Your task to perform on an android device: Do I have any events this weekend? Image 0: 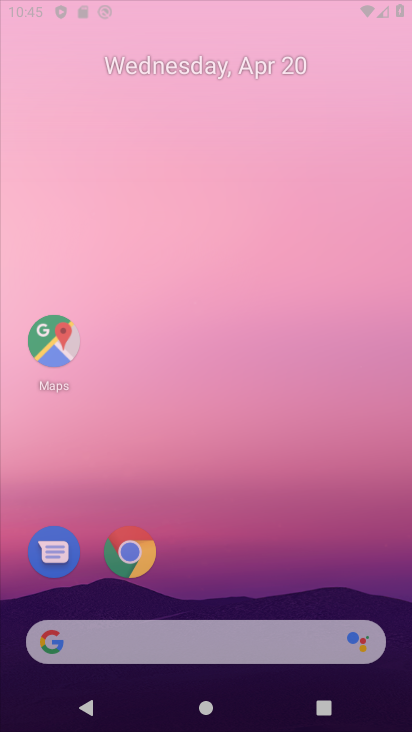
Step 0: click (211, 4)
Your task to perform on an android device: Do I have any events this weekend? Image 1: 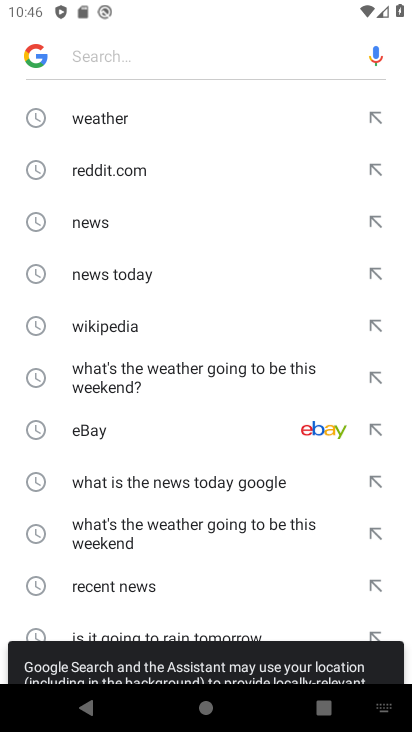
Step 1: press home button
Your task to perform on an android device: Do I have any events this weekend? Image 2: 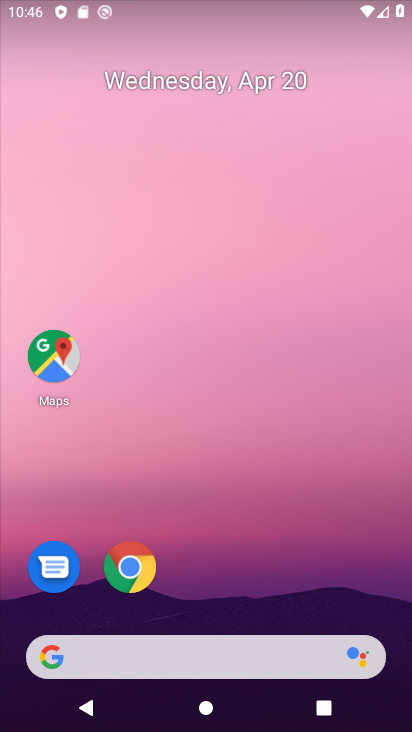
Step 2: drag from (201, 625) to (144, 100)
Your task to perform on an android device: Do I have any events this weekend? Image 3: 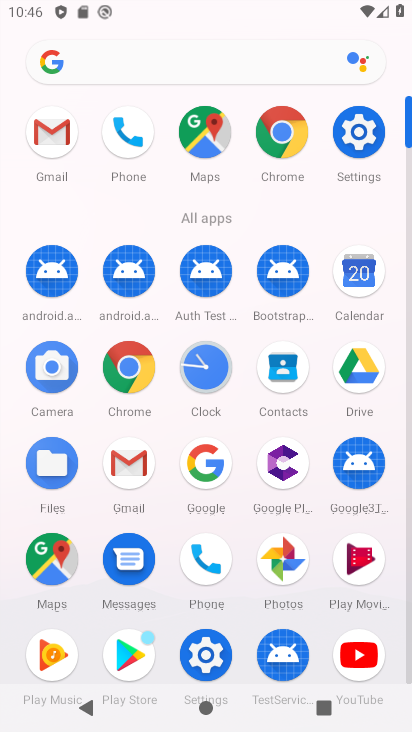
Step 3: click (358, 290)
Your task to perform on an android device: Do I have any events this weekend? Image 4: 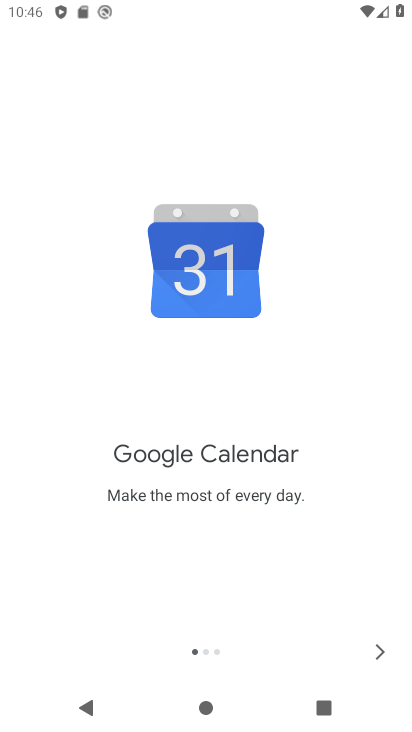
Step 4: click (384, 654)
Your task to perform on an android device: Do I have any events this weekend? Image 5: 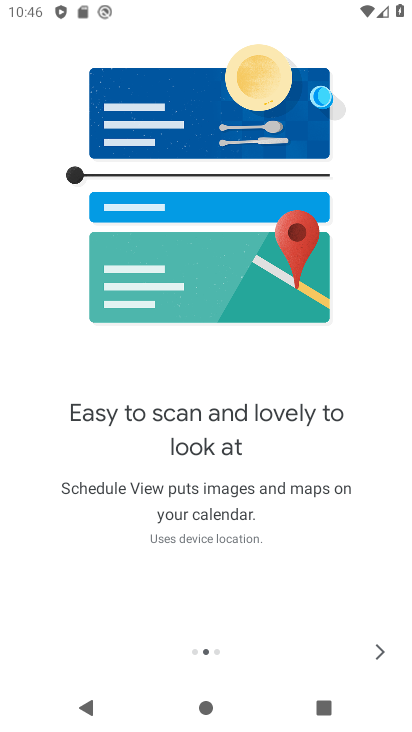
Step 5: click (373, 644)
Your task to perform on an android device: Do I have any events this weekend? Image 6: 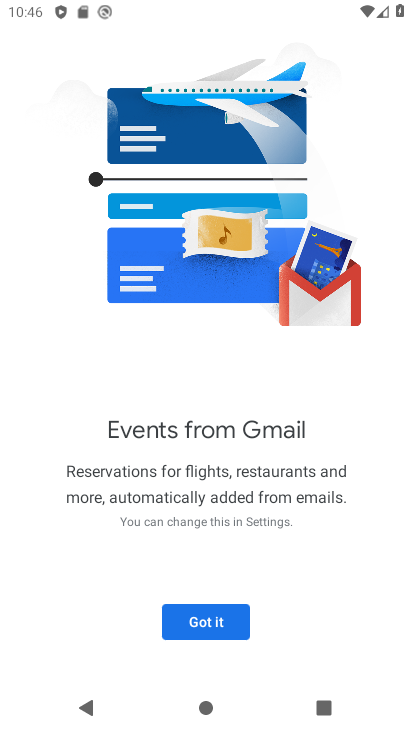
Step 6: click (373, 644)
Your task to perform on an android device: Do I have any events this weekend? Image 7: 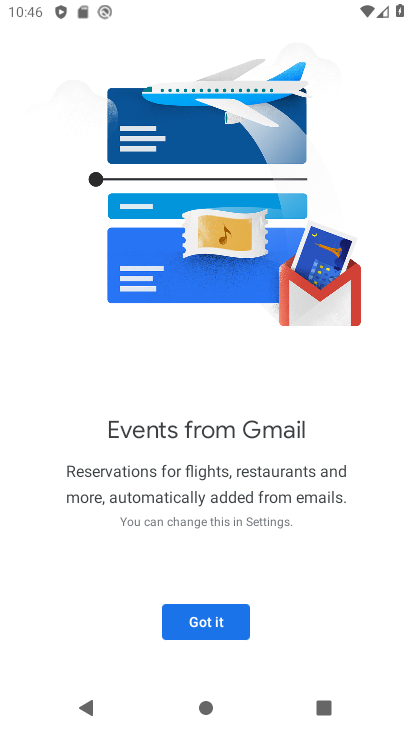
Step 7: click (197, 603)
Your task to perform on an android device: Do I have any events this weekend? Image 8: 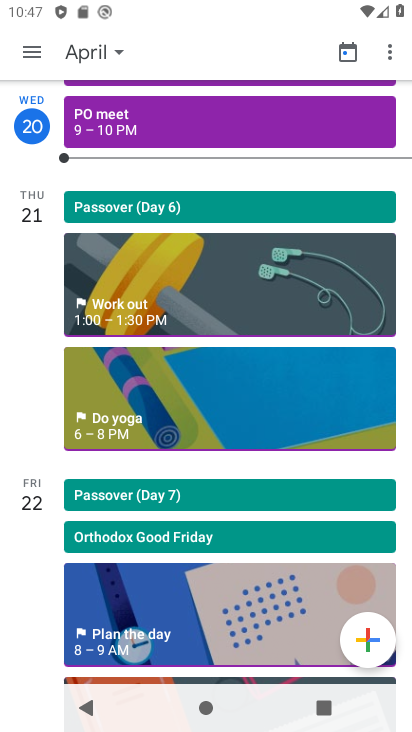
Step 8: click (36, 44)
Your task to perform on an android device: Do I have any events this weekend? Image 9: 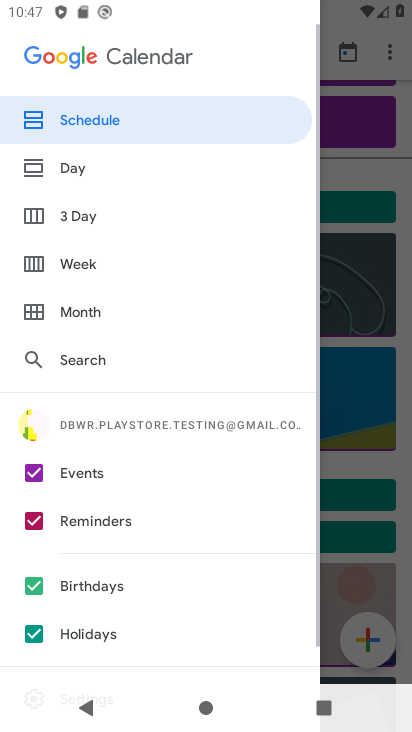
Step 9: click (67, 261)
Your task to perform on an android device: Do I have any events this weekend? Image 10: 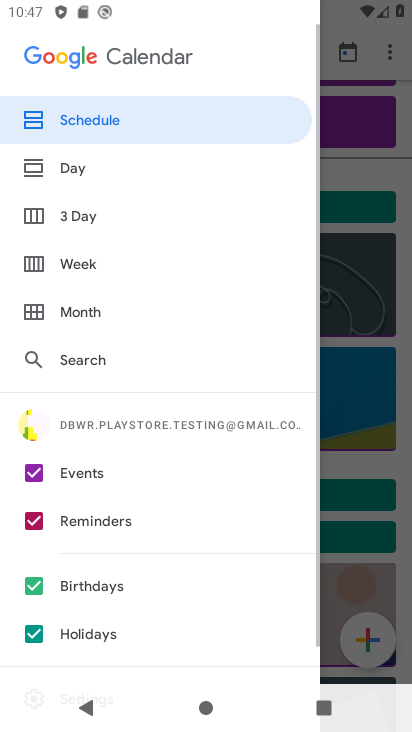
Step 10: click (110, 264)
Your task to perform on an android device: Do I have any events this weekend? Image 11: 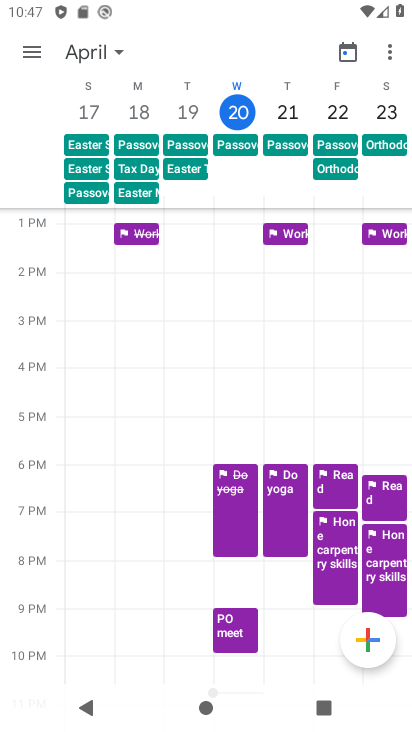
Step 11: task complete